Your task to perform on an android device: Go to Yahoo.com Image 0: 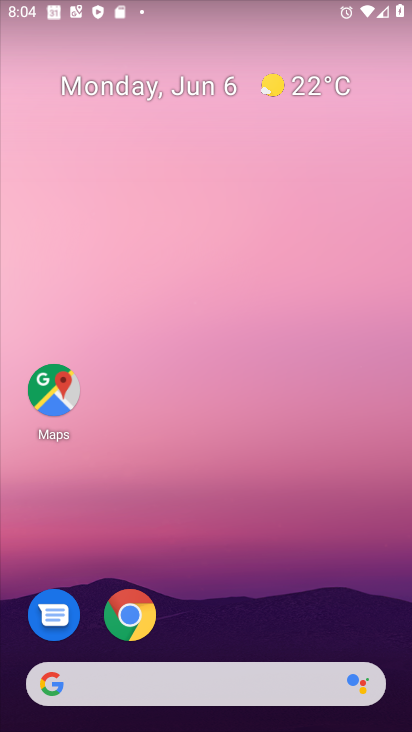
Step 0: click (130, 608)
Your task to perform on an android device: Go to Yahoo.com Image 1: 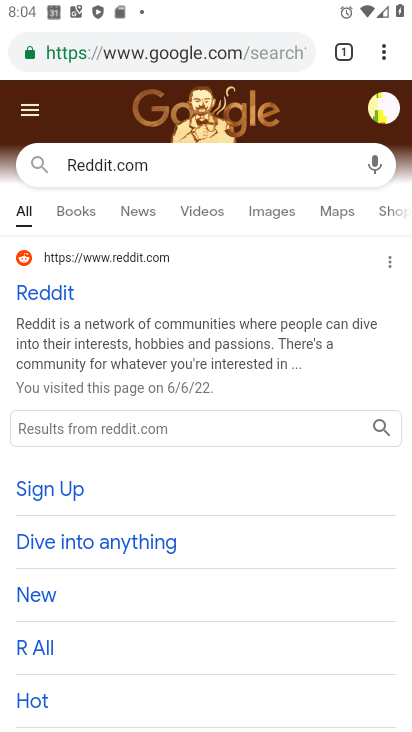
Step 1: click (169, 162)
Your task to perform on an android device: Go to Yahoo.com Image 2: 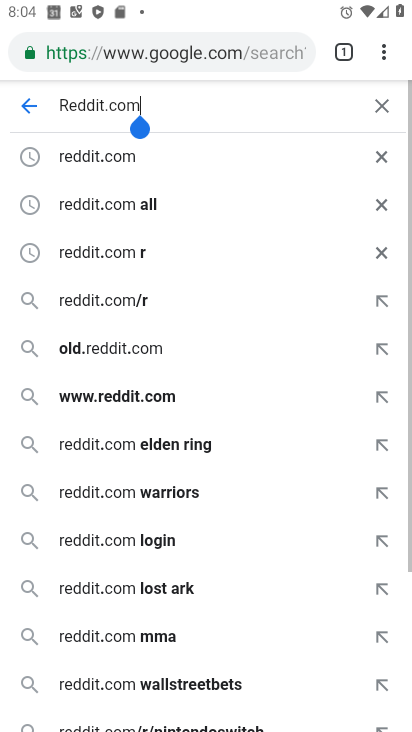
Step 2: click (307, 42)
Your task to perform on an android device: Go to Yahoo.com Image 3: 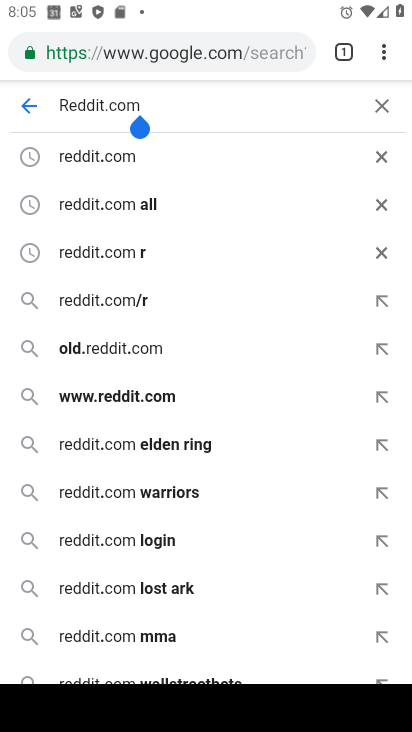
Step 3: click (302, 49)
Your task to perform on an android device: Go to Yahoo.com Image 4: 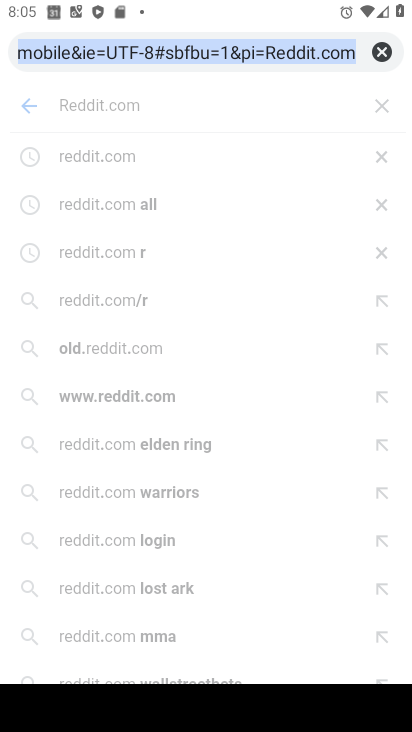
Step 4: click (386, 46)
Your task to perform on an android device: Go to Yahoo.com Image 5: 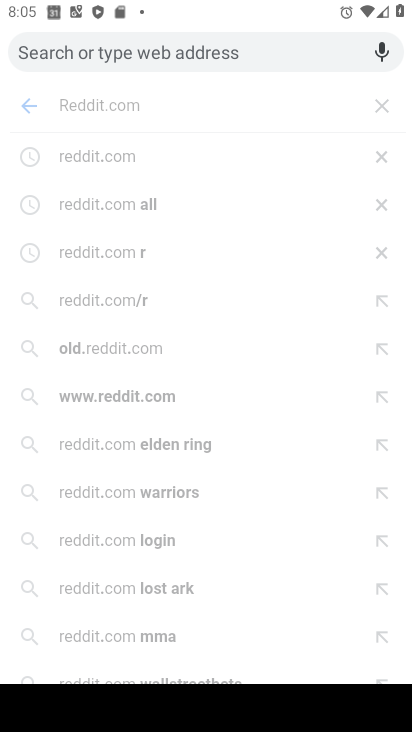
Step 5: type "Yahoo.com"
Your task to perform on an android device: Go to Yahoo.com Image 6: 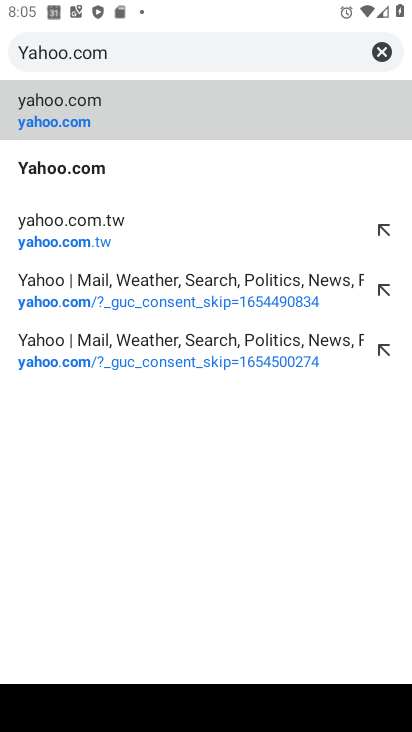
Step 6: click (74, 175)
Your task to perform on an android device: Go to Yahoo.com Image 7: 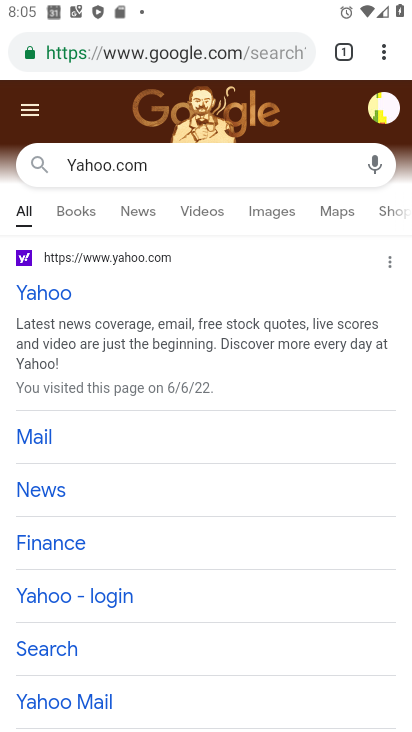
Step 7: task complete